Your task to perform on an android device: Go to internet settings Image 0: 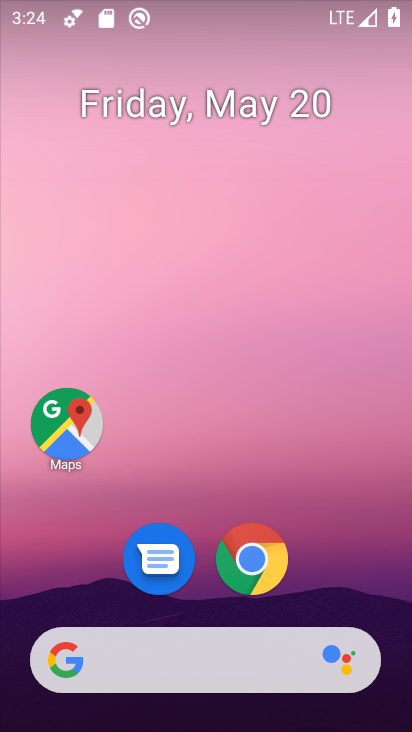
Step 0: drag from (217, 487) to (242, 47)
Your task to perform on an android device: Go to internet settings Image 1: 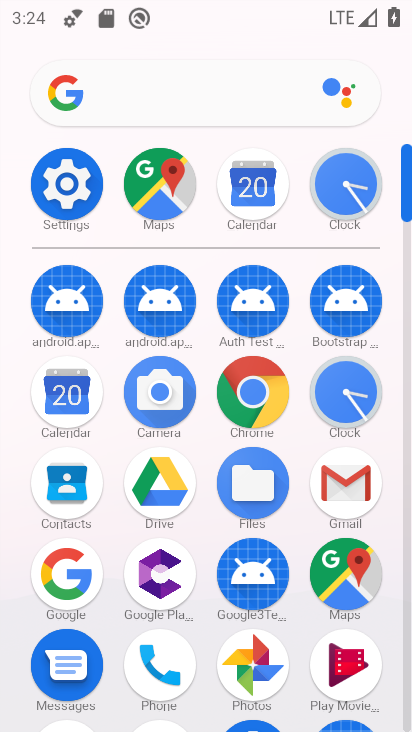
Step 1: click (64, 172)
Your task to perform on an android device: Go to internet settings Image 2: 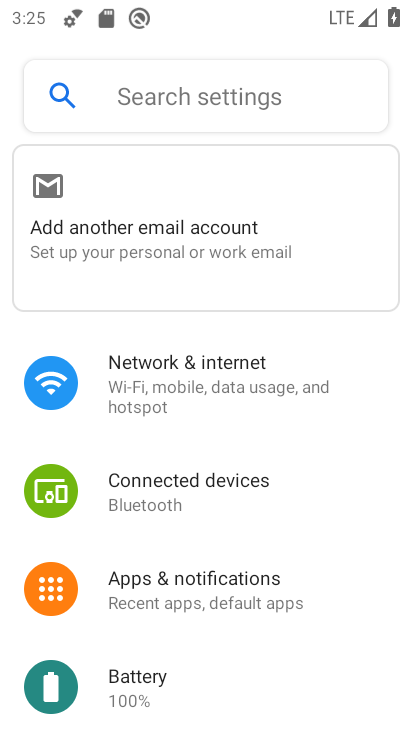
Step 2: click (215, 366)
Your task to perform on an android device: Go to internet settings Image 3: 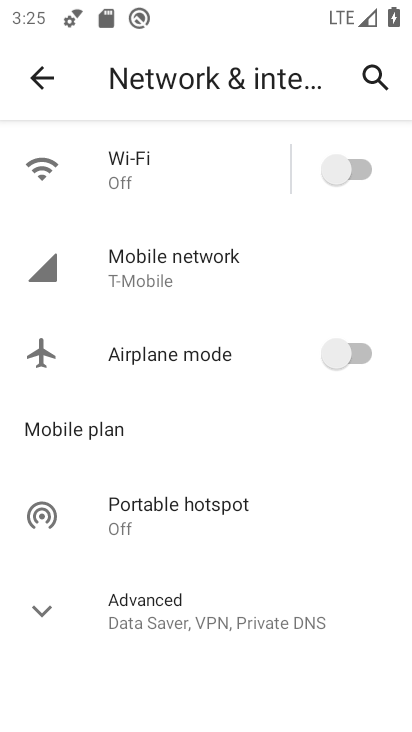
Step 3: task complete